Your task to perform on an android device: Open eBay Image 0: 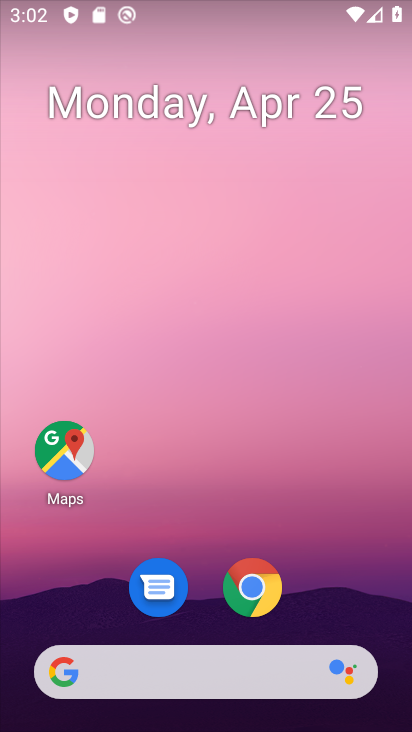
Step 0: click (260, 586)
Your task to perform on an android device: Open eBay Image 1: 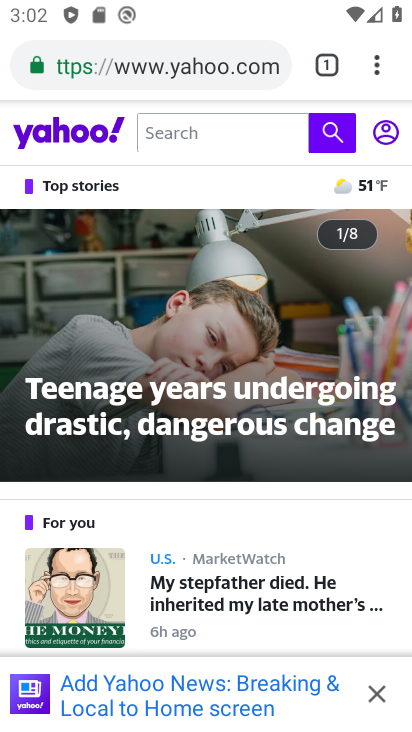
Step 1: click (379, 57)
Your task to perform on an android device: Open eBay Image 2: 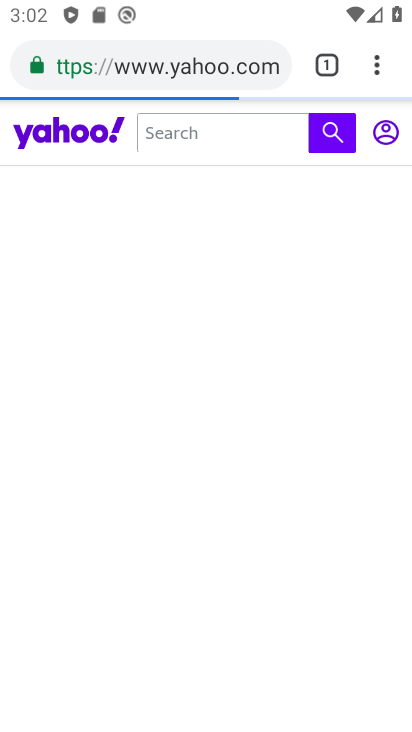
Step 2: click (373, 60)
Your task to perform on an android device: Open eBay Image 3: 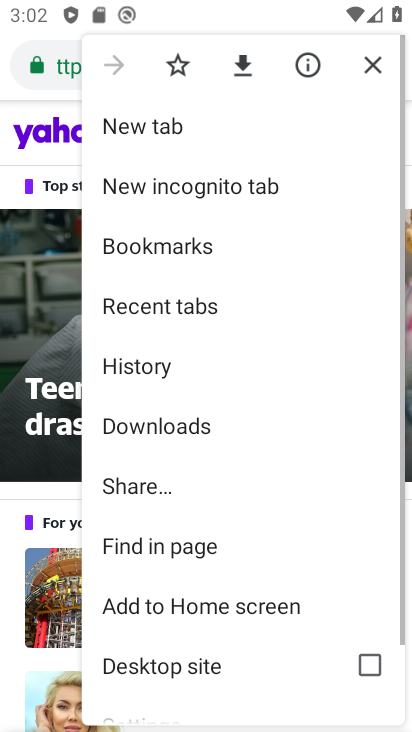
Step 3: click (373, 60)
Your task to perform on an android device: Open eBay Image 4: 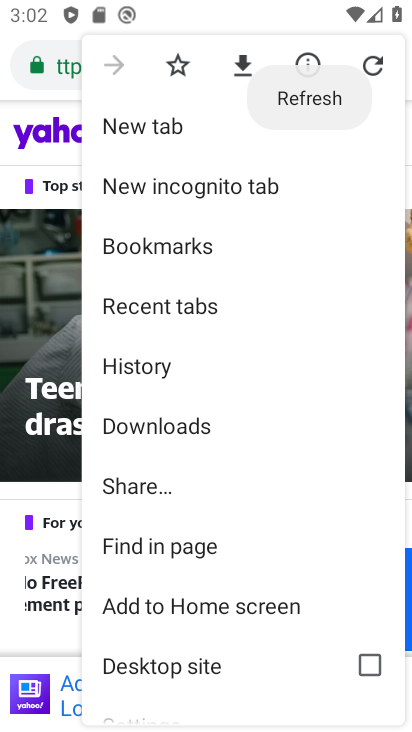
Step 4: click (148, 126)
Your task to perform on an android device: Open eBay Image 5: 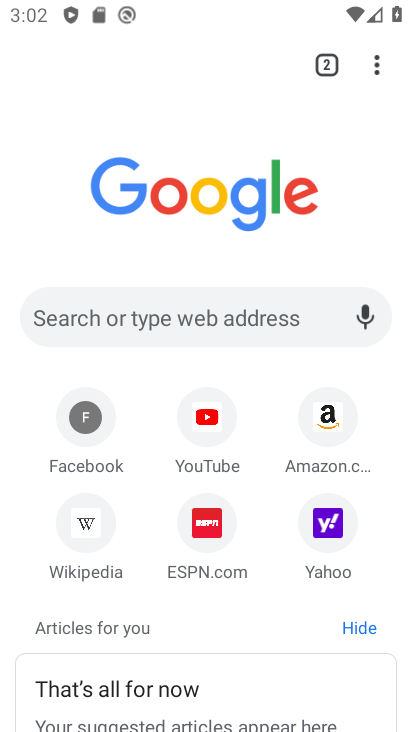
Step 5: click (134, 312)
Your task to perform on an android device: Open eBay Image 6: 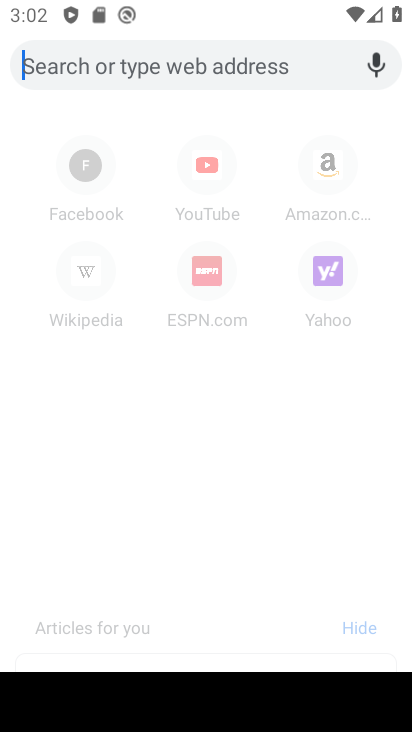
Step 6: type "ebay. om"
Your task to perform on an android device: Open eBay Image 7: 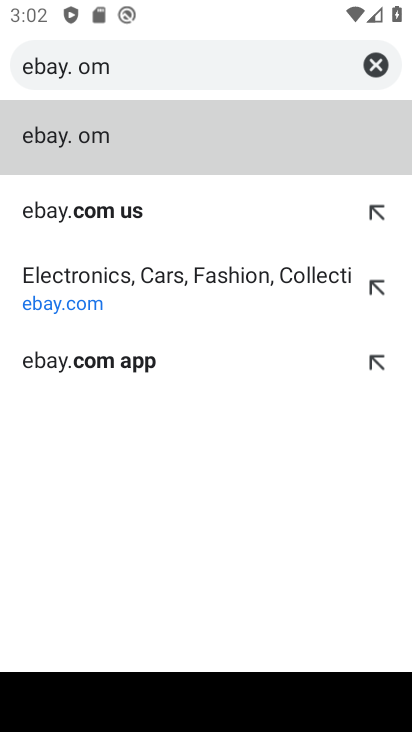
Step 7: click (135, 360)
Your task to perform on an android device: Open eBay Image 8: 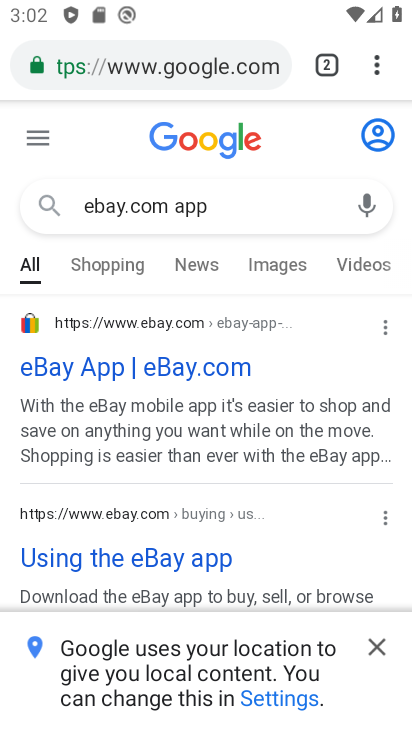
Step 8: click (103, 369)
Your task to perform on an android device: Open eBay Image 9: 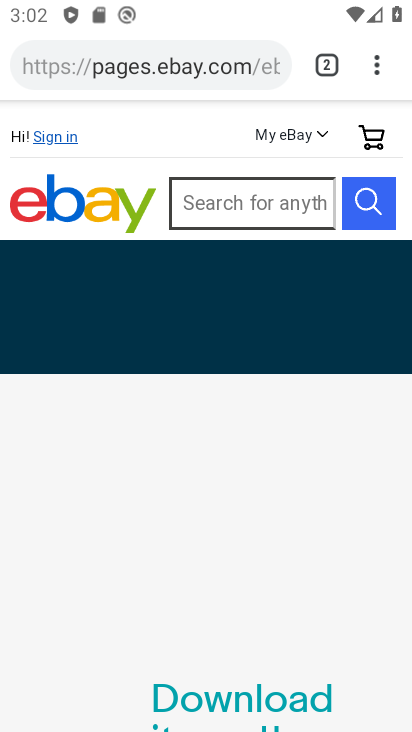
Step 9: task complete